Your task to perform on an android device: check out phone information Image 0: 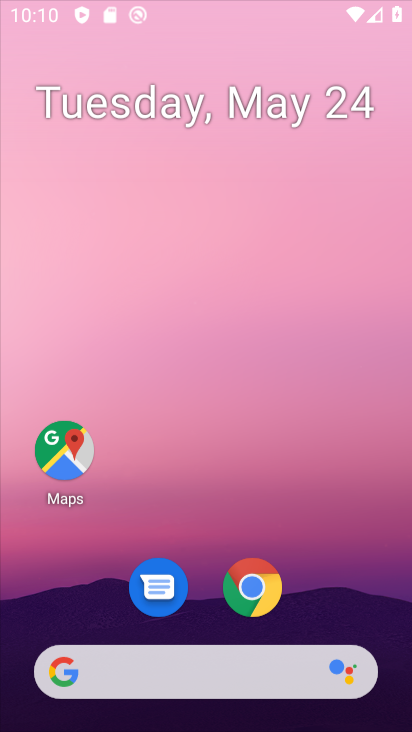
Step 0: press home button
Your task to perform on an android device: check out phone information Image 1: 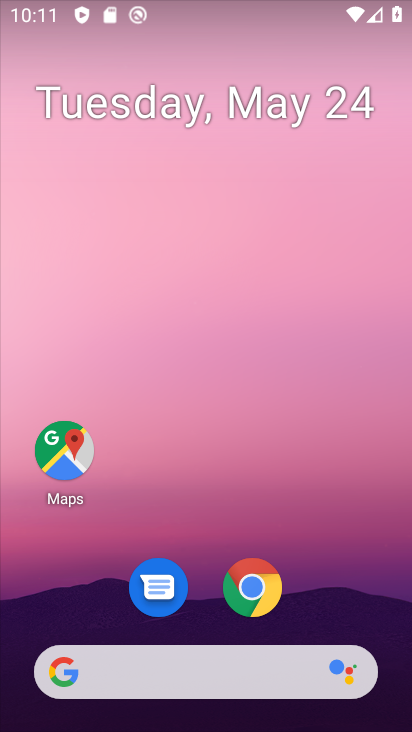
Step 1: drag from (322, 585) to (373, 213)
Your task to perform on an android device: check out phone information Image 2: 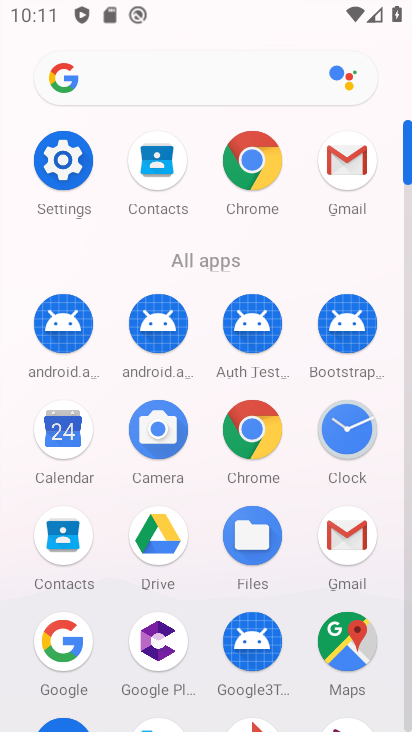
Step 2: click (409, 679)
Your task to perform on an android device: check out phone information Image 3: 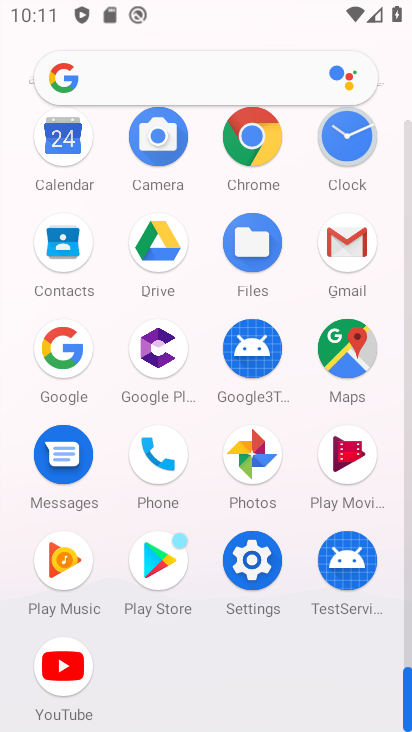
Step 3: click (152, 450)
Your task to perform on an android device: check out phone information Image 4: 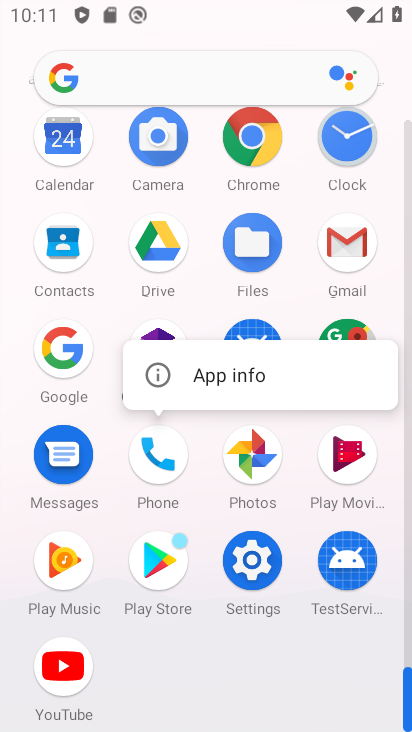
Step 4: click (217, 377)
Your task to perform on an android device: check out phone information Image 5: 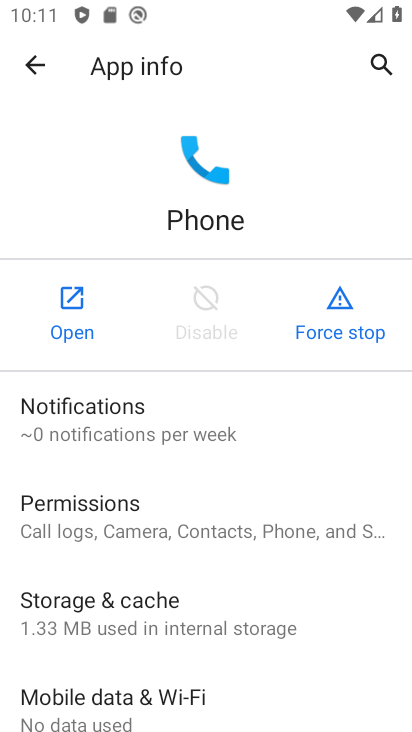
Step 5: task complete